Your task to perform on an android device: open the mobile data screen to see how much data has been used Image 0: 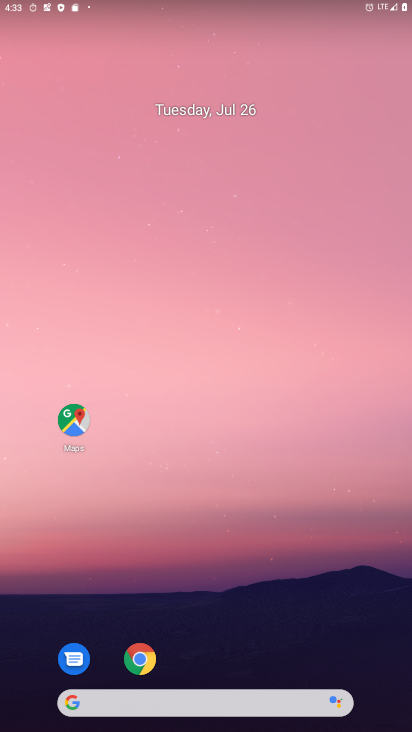
Step 0: press home button
Your task to perform on an android device: open the mobile data screen to see how much data has been used Image 1: 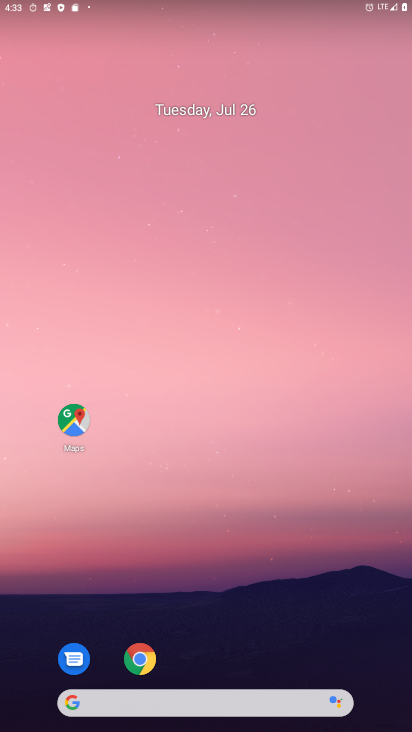
Step 1: drag from (244, 661) to (272, 147)
Your task to perform on an android device: open the mobile data screen to see how much data has been used Image 2: 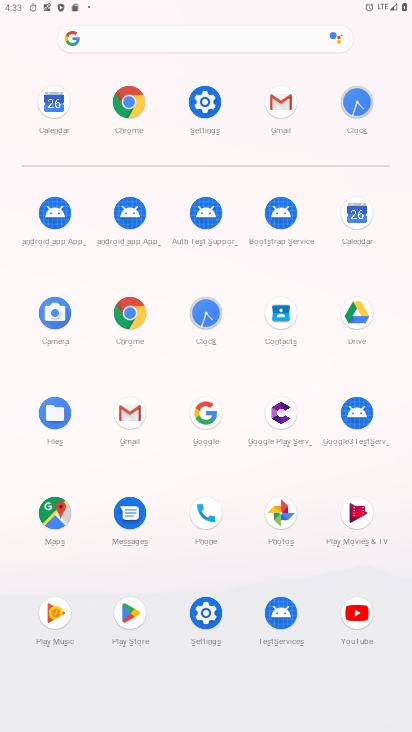
Step 2: click (194, 109)
Your task to perform on an android device: open the mobile data screen to see how much data has been used Image 3: 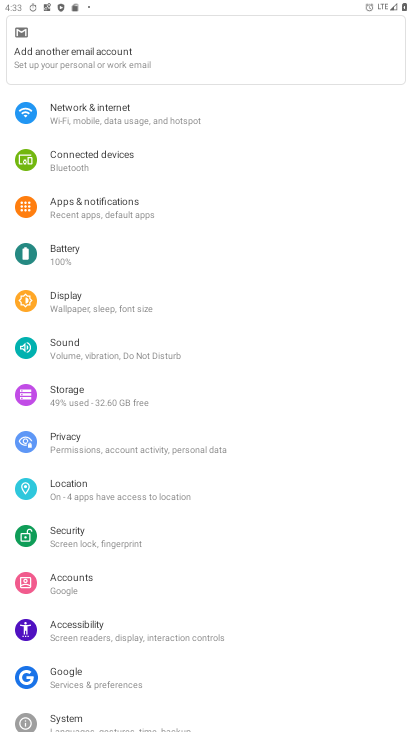
Step 3: click (102, 116)
Your task to perform on an android device: open the mobile data screen to see how much data has been used Image 4: 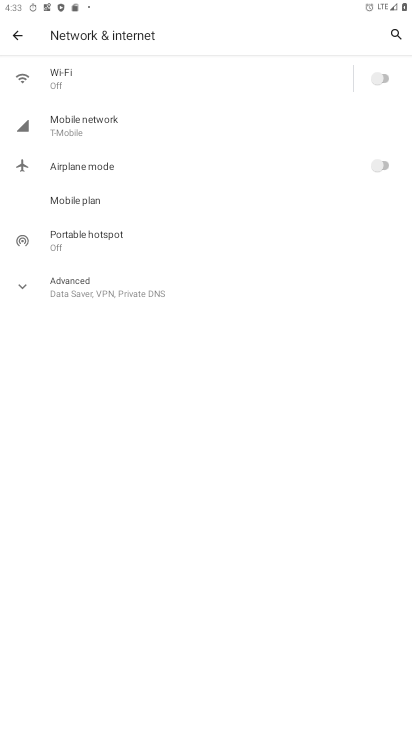
Step 4: click (91, 123)
Your task to perform on an android device: open the mobile data screen to see how much data has been used Image 5: 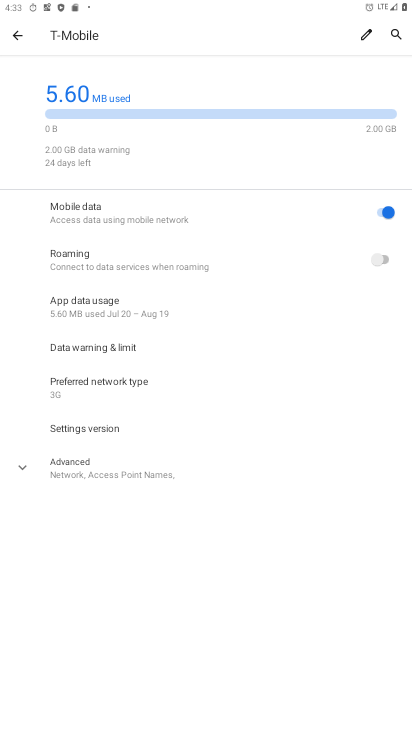
Step 5: click (95, 298)
Your task to perform on an android device: open the mobile data screen to see how much data has been used Image 6: 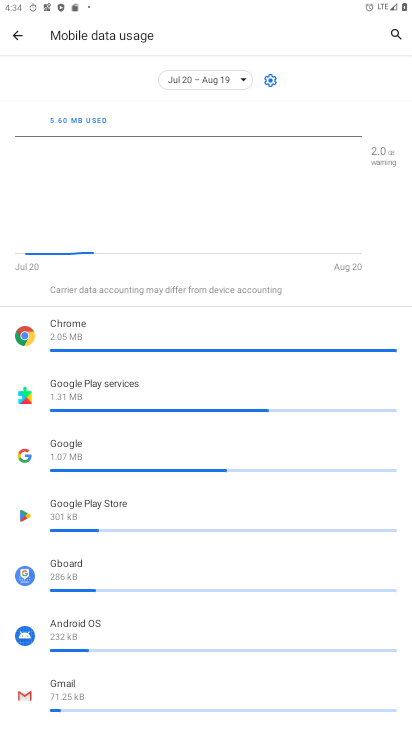
Step 6: task complete